Your task to perform on an android device: What's on my calendar tomorrow? Image 0: 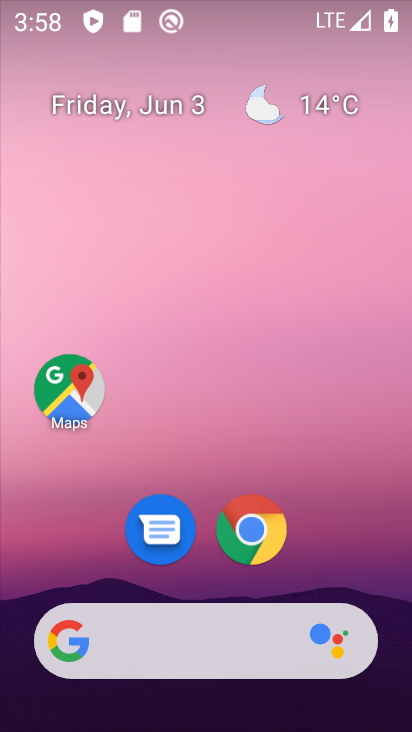
Step 0: drag from (201, 573) to (270, 213)
Your task to perform on an android device: What's on my calendar tomorrow? Image 1: 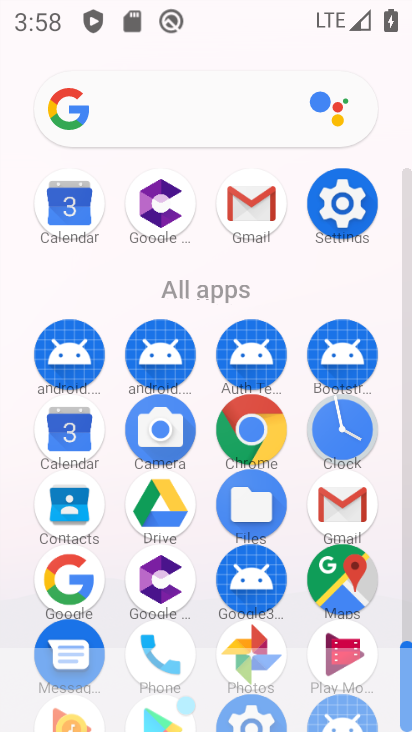
Step 1: click (67, 430)
Your task to perform on an android device: What's on my calendar tomorrow? Image 2: 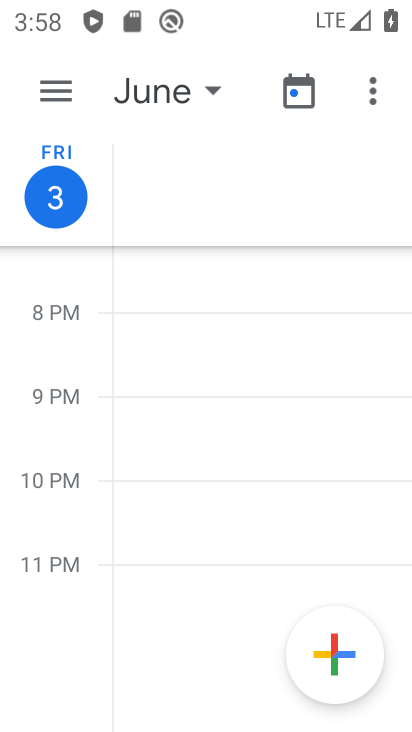
Step 2: click (87, 215)
Your task to perform on an android device: What's on my calendar tomorrow? Image 3: 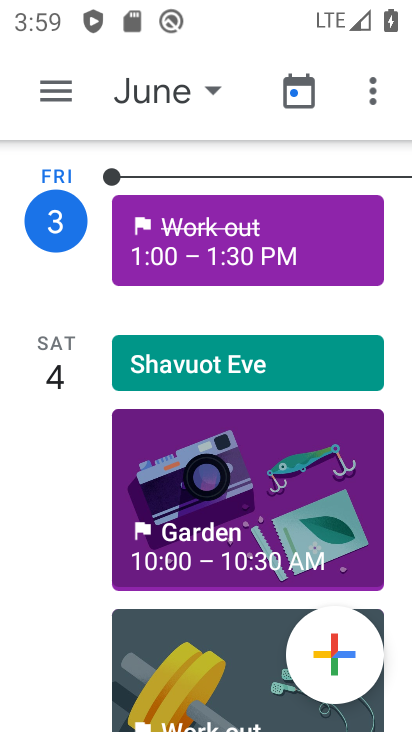
Step 3: click (77, 373)
Your task to perform on an android device: What's on my calendar tomorrow? Image 4: 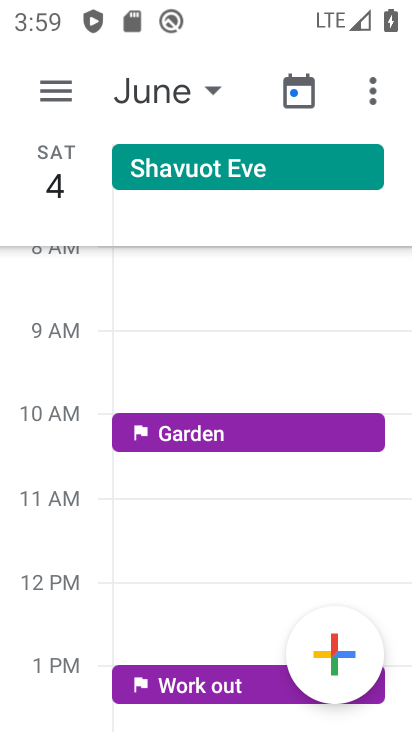
Step 4: task complete